Your task to perform on an android device: turn on sleep mode Image 0: 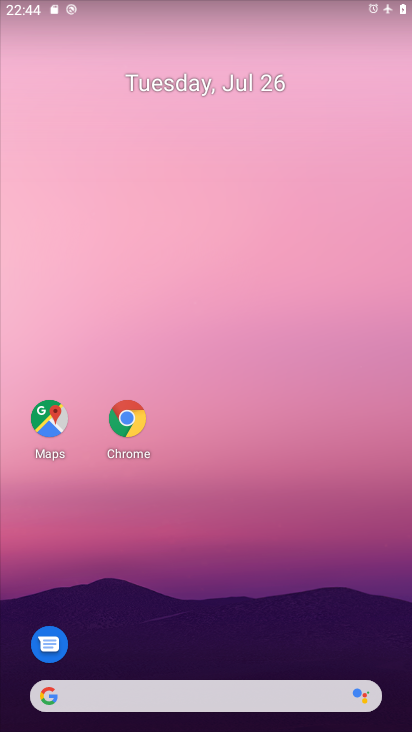
Step 0: drag from (165, 639) to (260, 178)
Your task to perform on an android device: turn on sleep mode Image 1: 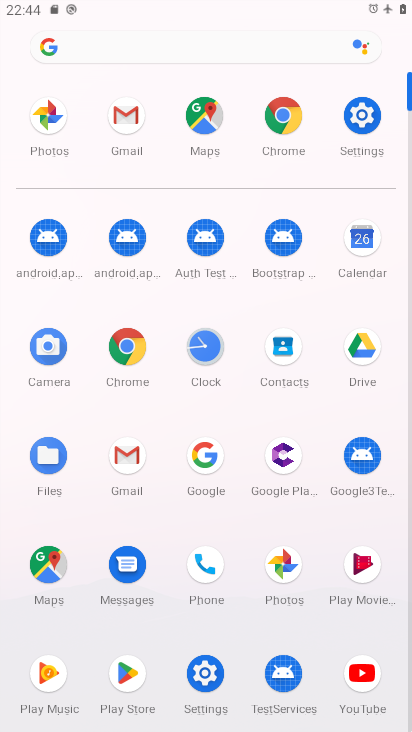
Step 1: click (358, 115)
Your task to perform on an android device: turn on sleep mode Image 2: 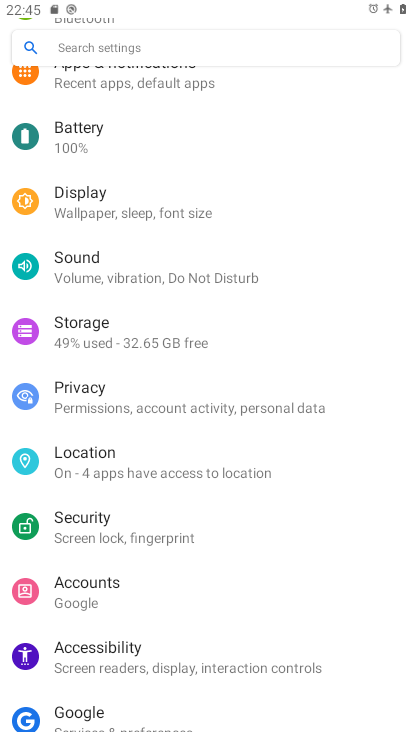
Step 2: task complete